Your task to perform on an android device: turn on showing notifications on the lock screen Image 0: 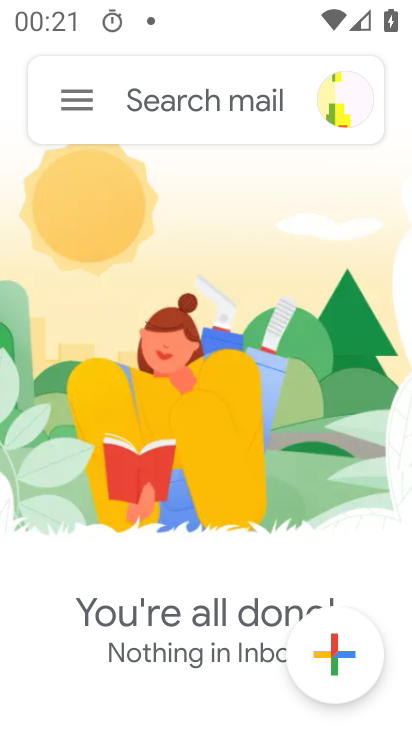
Step 0: press home button
Your task to perform on an android device: turn on showing notifications on the lock screen Image 1: 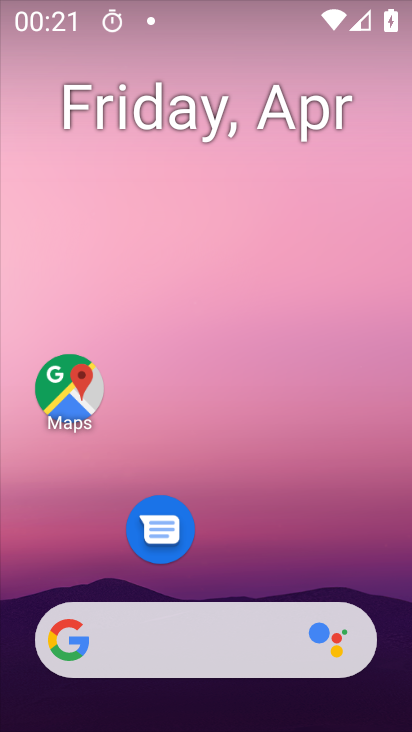
Step 1: drag from (264, 572) to (265, 20)
Your task to perform on an android device: turn on showing notifications on the lock screen Image 2: 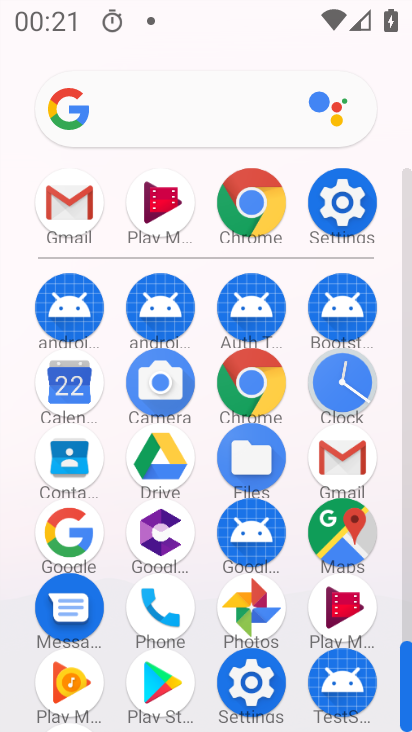
Step 2: click (333, 211)
Your task to perform on an android device: turn on showing notifications on the lock screen Image 3: 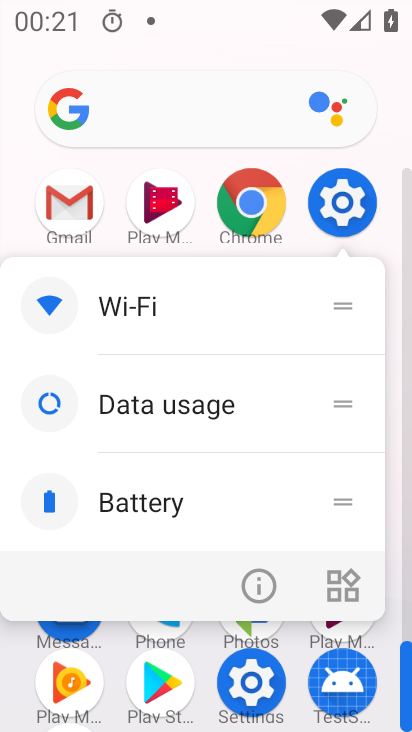
Step 3: click (348, 212)
Your task to perform on an android device: turn on showing notifications on the lock screen Image 4: 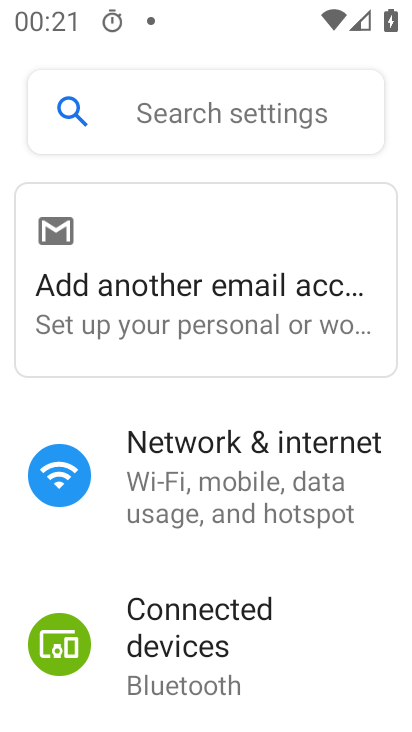
Step 4: drag from (211, 667) to (199, 225)
Your task to perform on an android device: turn on showing notifications on the lock screen Image 5: 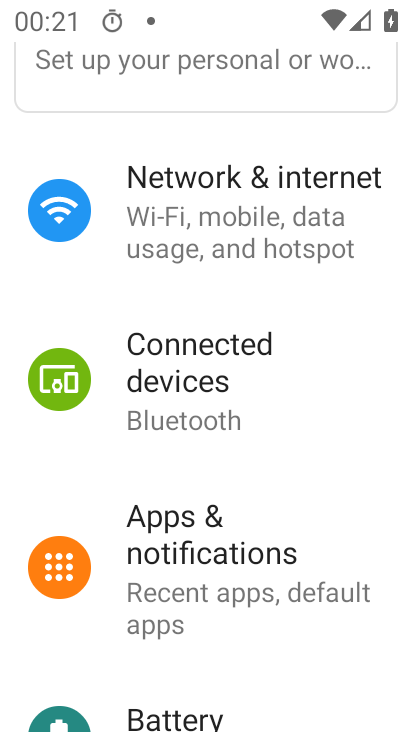
Step 5: drag from (203, 612) to (198, 443)
Your task to perform on an android device: turn on showing notifications on the lock screen Image 6: 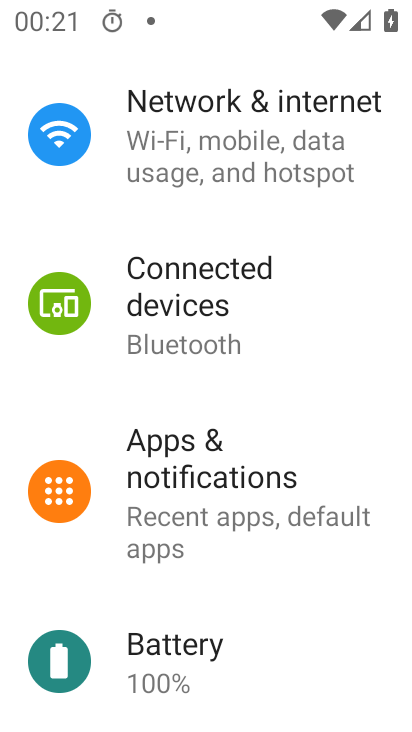
Step 6: click (169, 478)
Your task to perform on an android device: turn on showing notifications on the lock screen Image 7: 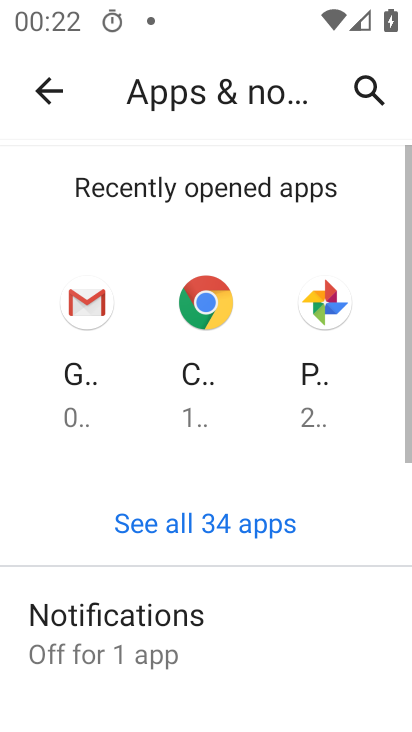
Step 7: click (123, 645)
Your task to perform on an android device: turn on showing notifications on the lock screen Image 8: 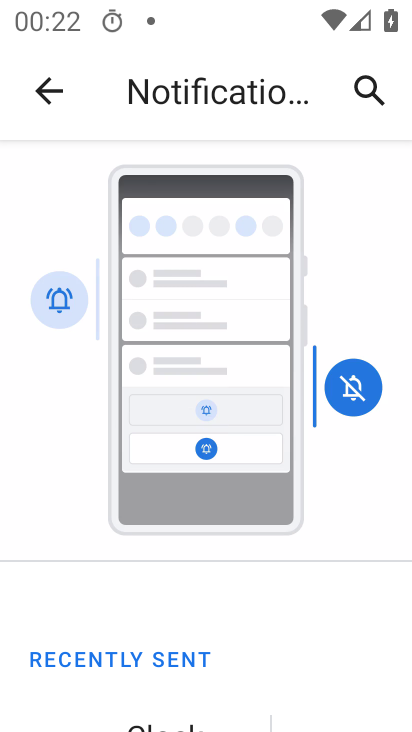
Step 8: drag from (210, 640) to (254, 218)
Your task to perform on an android device: turn on showing notifications on the lock screen Image 9: 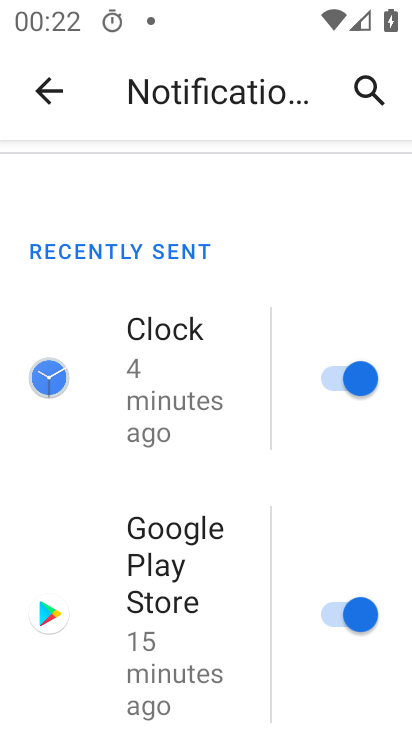
Step 9: drag from (170, 577) to (241, 22)
Your task to perform on an android device: turn on showing notifications on the lock screen Image 10: 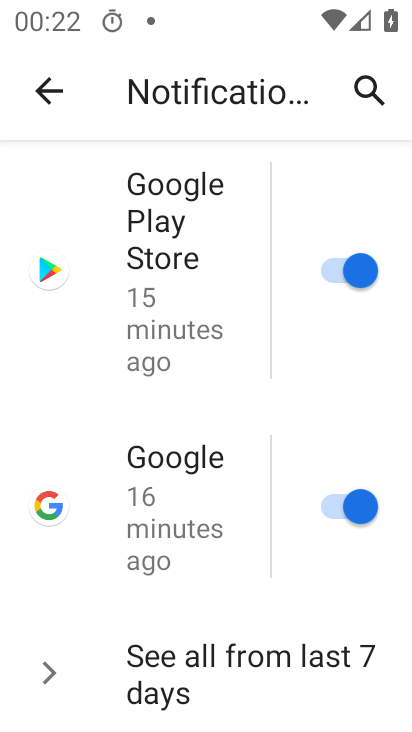
Step 10: drag from (161, 577) to (215, 190)
Your task to perform on an android device: turn on showing notifications on the lock screen Image 11: 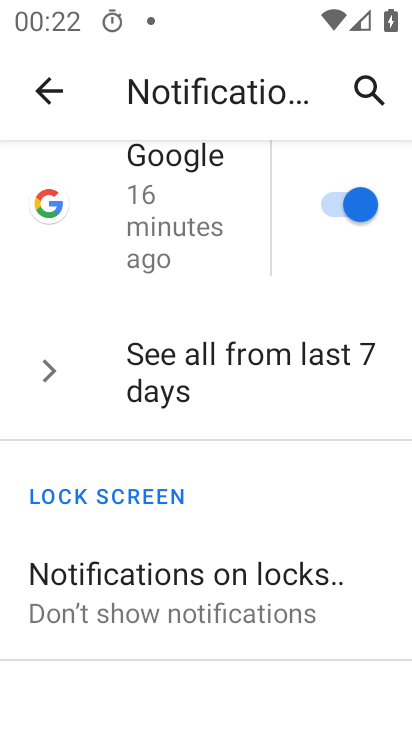
Step 11: click (177, 597)
Your task to perform on an android device: turn on showing notifications on the lock screen Image 12: 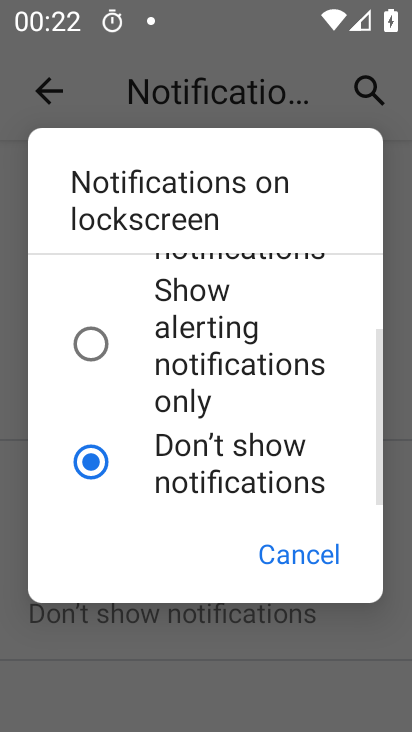
Step 12: drag from (122, 357) to (107, 731)
Your task to perform on an android device: turn on showing notifications on the lock screen Image 13: 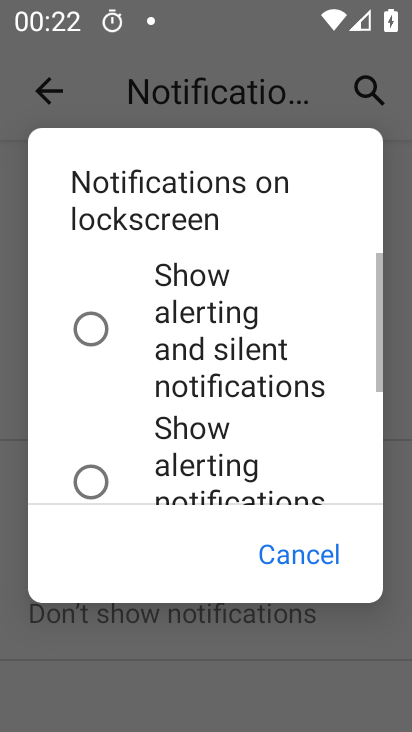
Step 13: click (87, 332)
Your task to perform on an android device: turn on showing notifications on the lock screen Image 14: 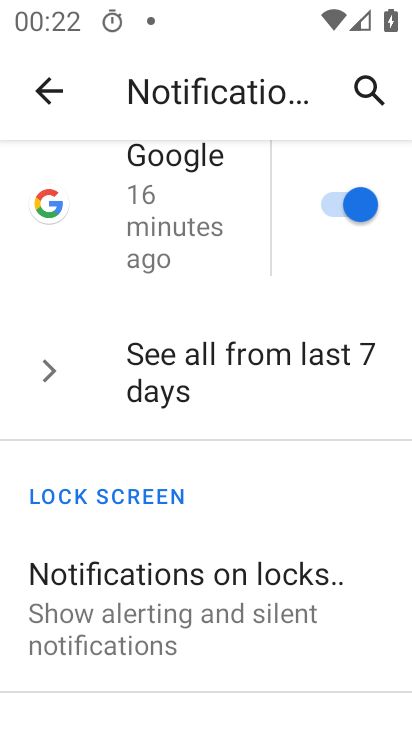
Step 14: task complete